Your task to perform on an android device: Open Android settings Image 0: 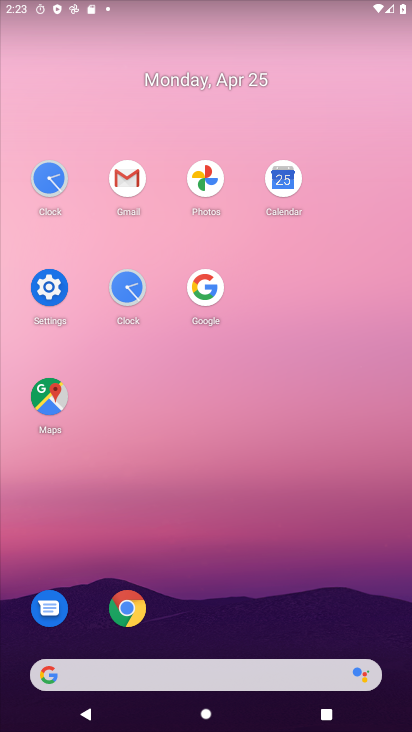
Step 0: click (53, 283)
Your task to perform on an android device: Open Android settings Image 1: 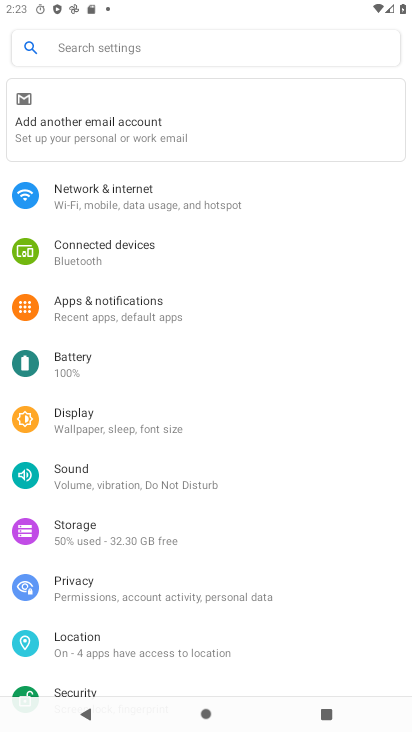
Step 1: task complete